Your task to perform on an android device: open app "DuckDuckGo Privacy Browser" (install if not already installed) Image 0: 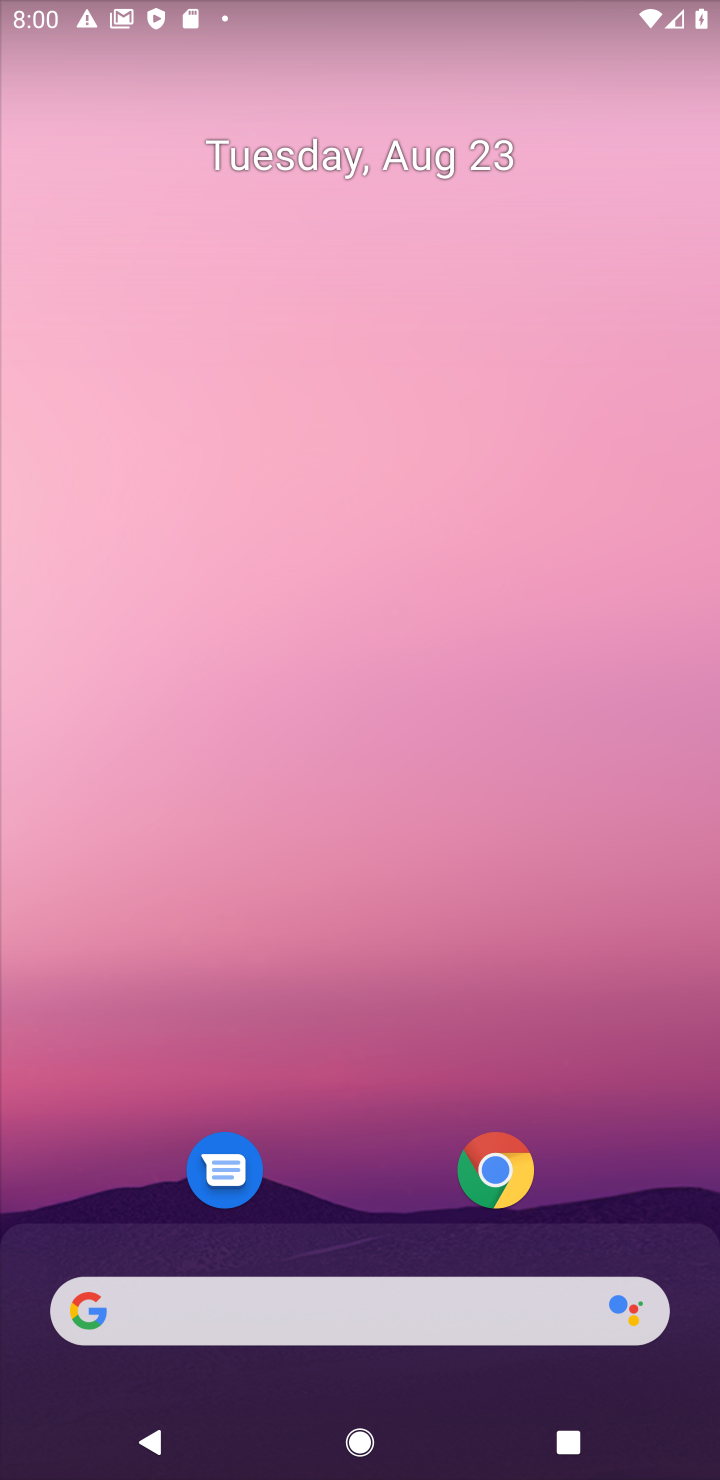
Step 0: drag from (653, 933) to (701, 12)
Your task to perform on an android device: open app "DuckDuckGo Privacy Browser" (install if not already installed) Image 1: 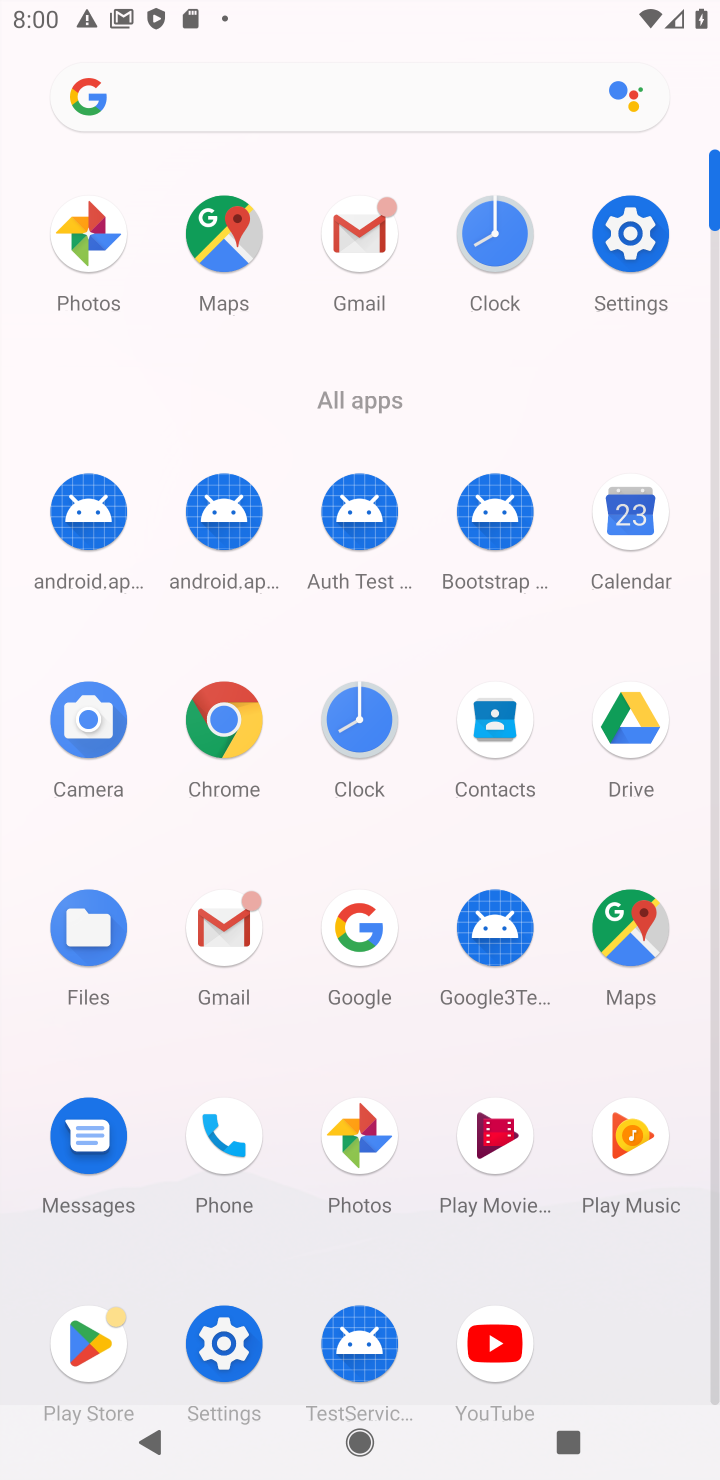
Step 1: click (90, 1343)
Your task to perform on an android device: open app "DuckDuckGo Privacy Browser" (install if not already installed) Image 2: 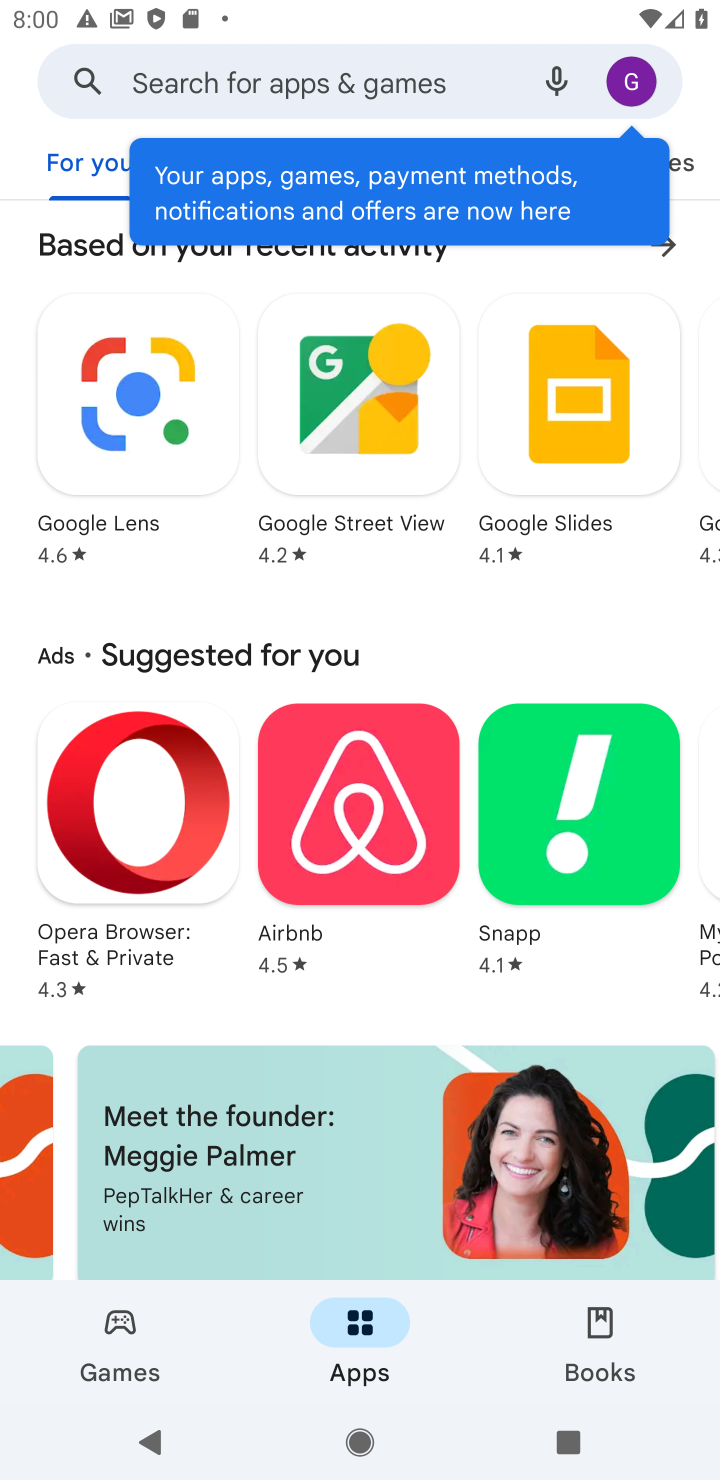
Step 2: click (71, 77)
Your task to perform on an android device: open app "DuckDuckGo Privacy Browser" (install if not already installed) Image 3: 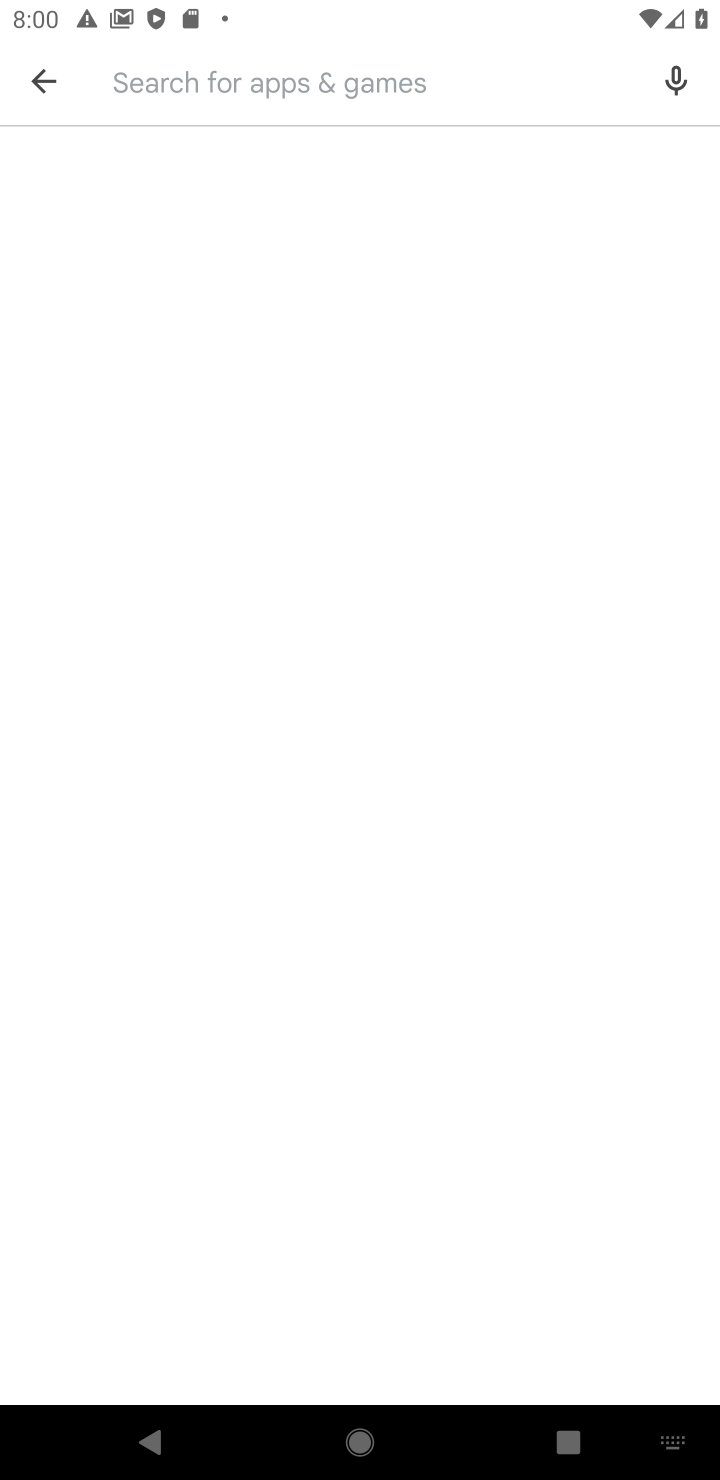
Step 3: type "DuckDuckGo Privacy Browser"
Your task to perform on an android device: open app "DuckDuckGo Privacy Browser" (install if not already installed) Image 4: 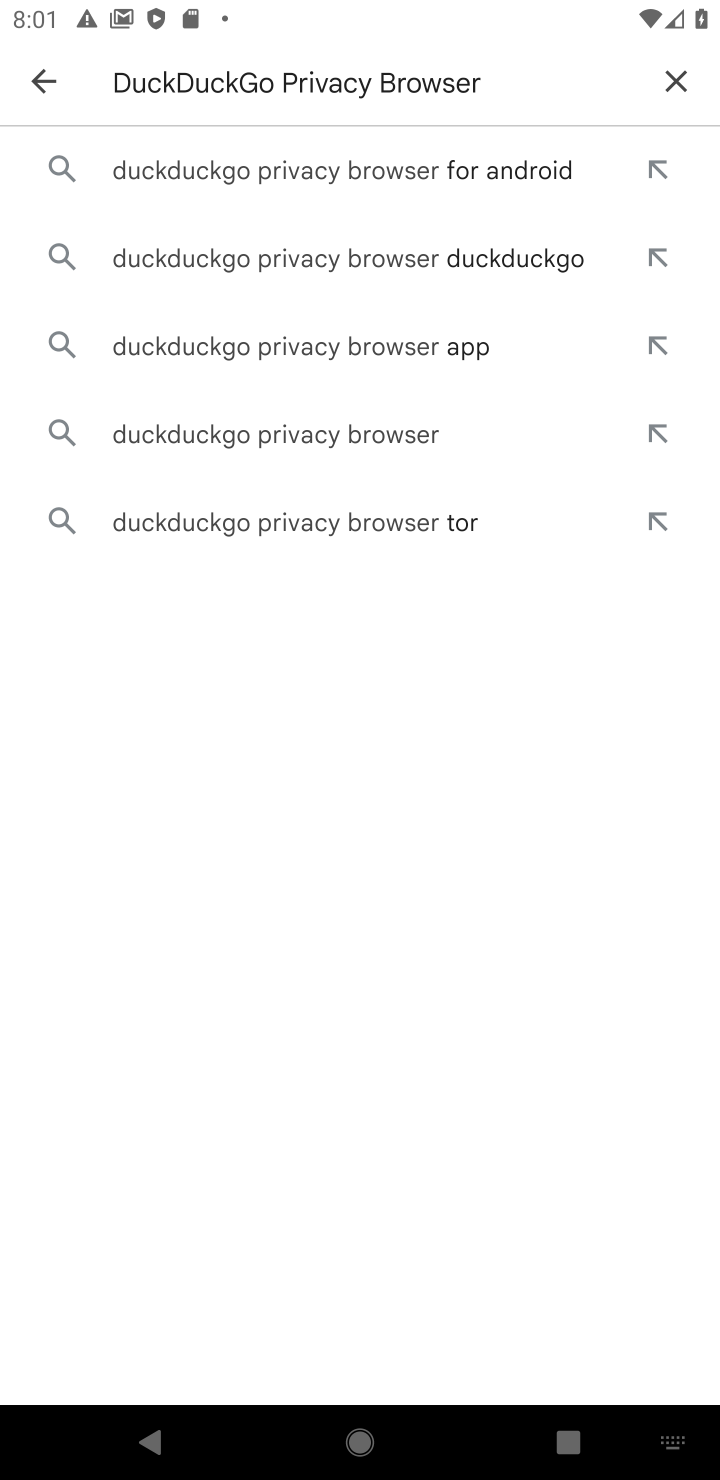
Step 4: click (243, 172)
Your task to perform on an android device: open app "DuckDuckGo Privacy Browser" (install if not already installed) Image 5: 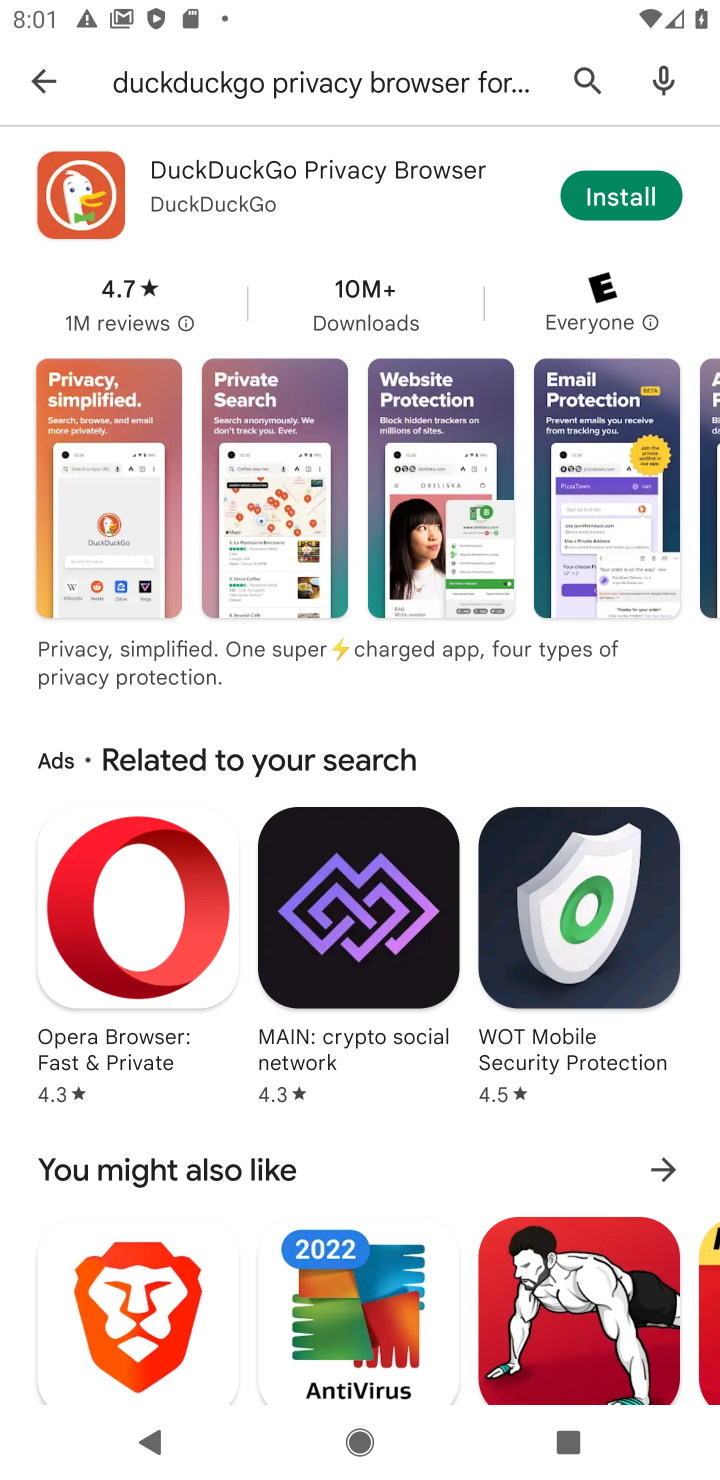
Step 5: click (191, 180)
Your task to perform on an android device: open app "DuckDuckGo Privacy Browser" (install if not already installed) Image 6: 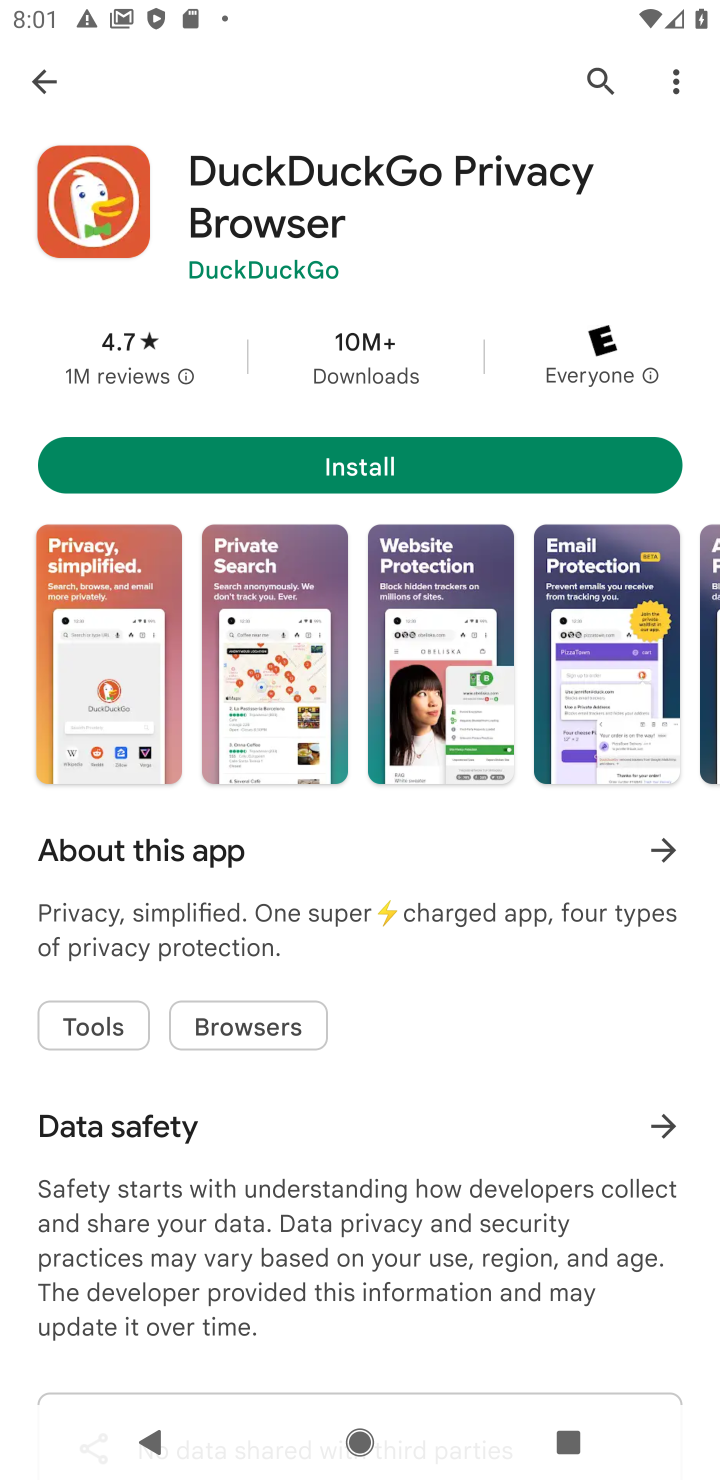
Step 6: click (349, 467)
Your task to perform on an android device: open app "DuckDuckGo Privacy Browser" (install if not already installed) Image 7: 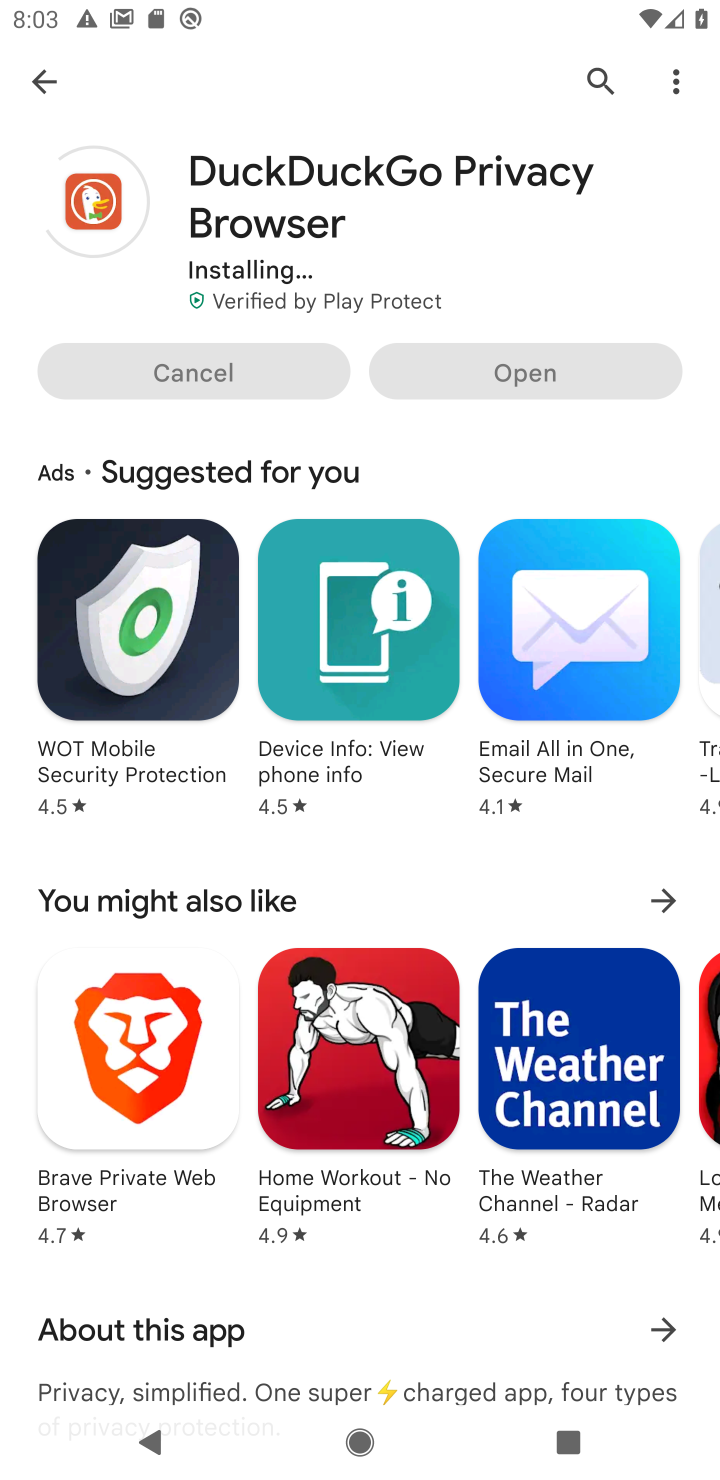
Step 7: drag from (323, 217) to (326, 296)
Your task to perform on an android device: open app "DuckDuckGo Privacy Browser" (install if not already installed) Image 8: 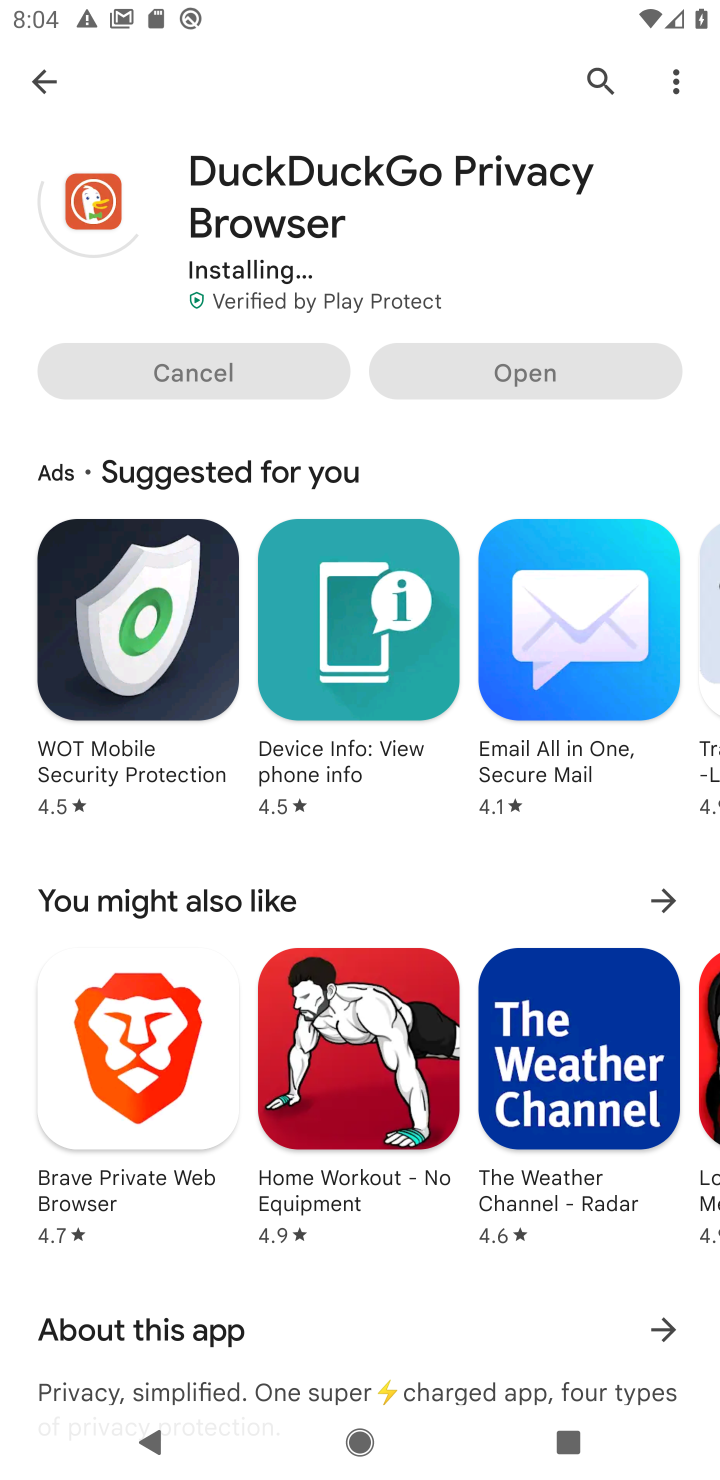
Step 8: click (279, 192)
Your task to perform on an android device: open app "DuckDuckGo Privacy Browser" (install if not already installed) Image 9: 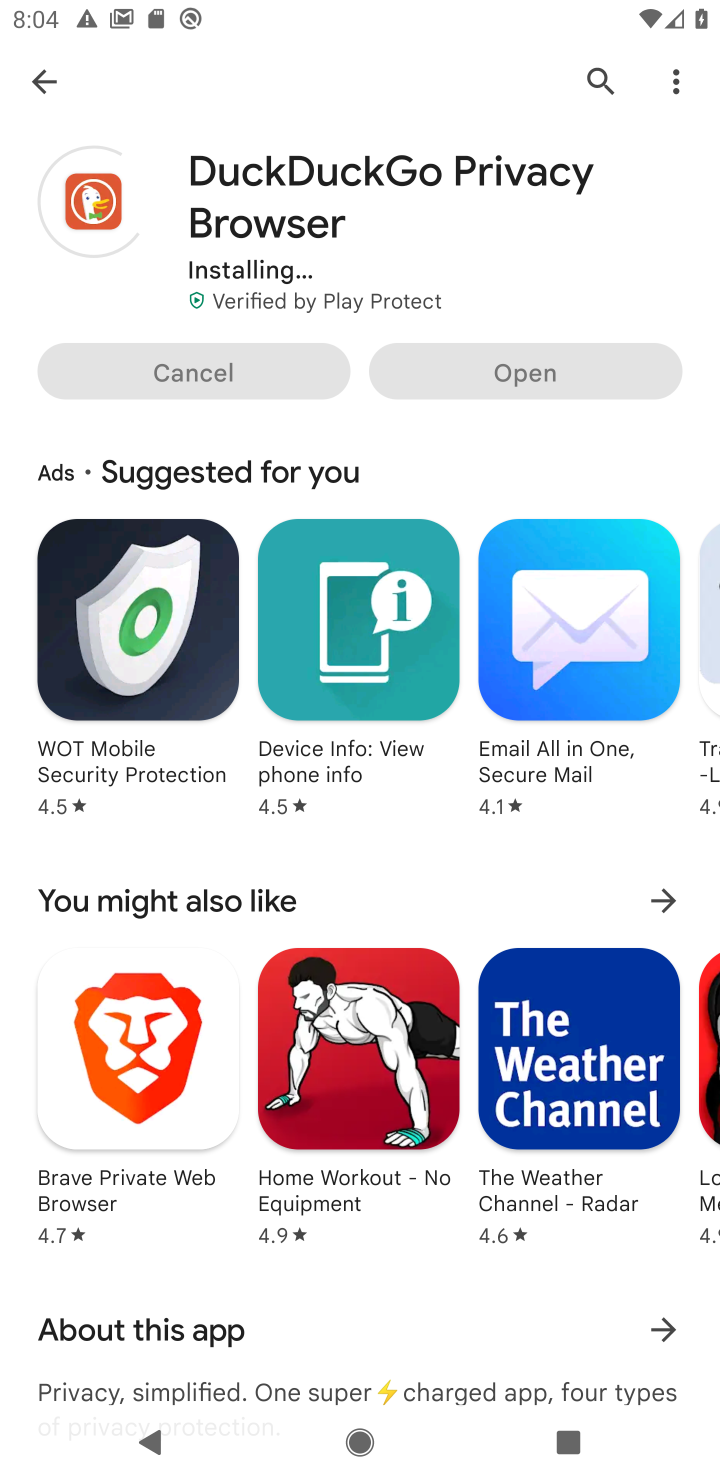
Step 9: drag from (320, 206) to (339, 330)
Your task to perform on an android device: open app "DuckDuckGo Privacy Browser" (install if not already installed) Image 10: 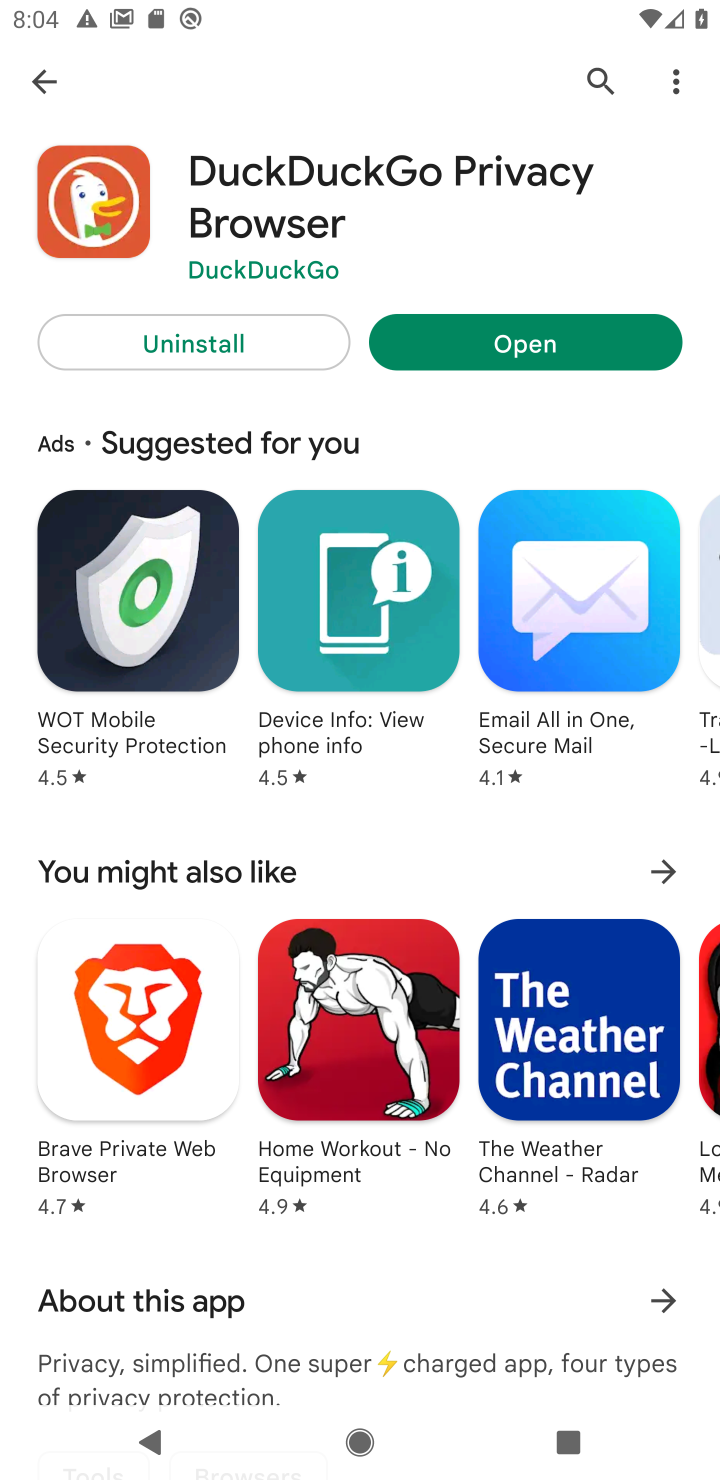
Step 10: click (536, 346)
Your task to perform on an android device: open app "DuckDuckGo Privacy Browser" (install if not already installed) Image 11: 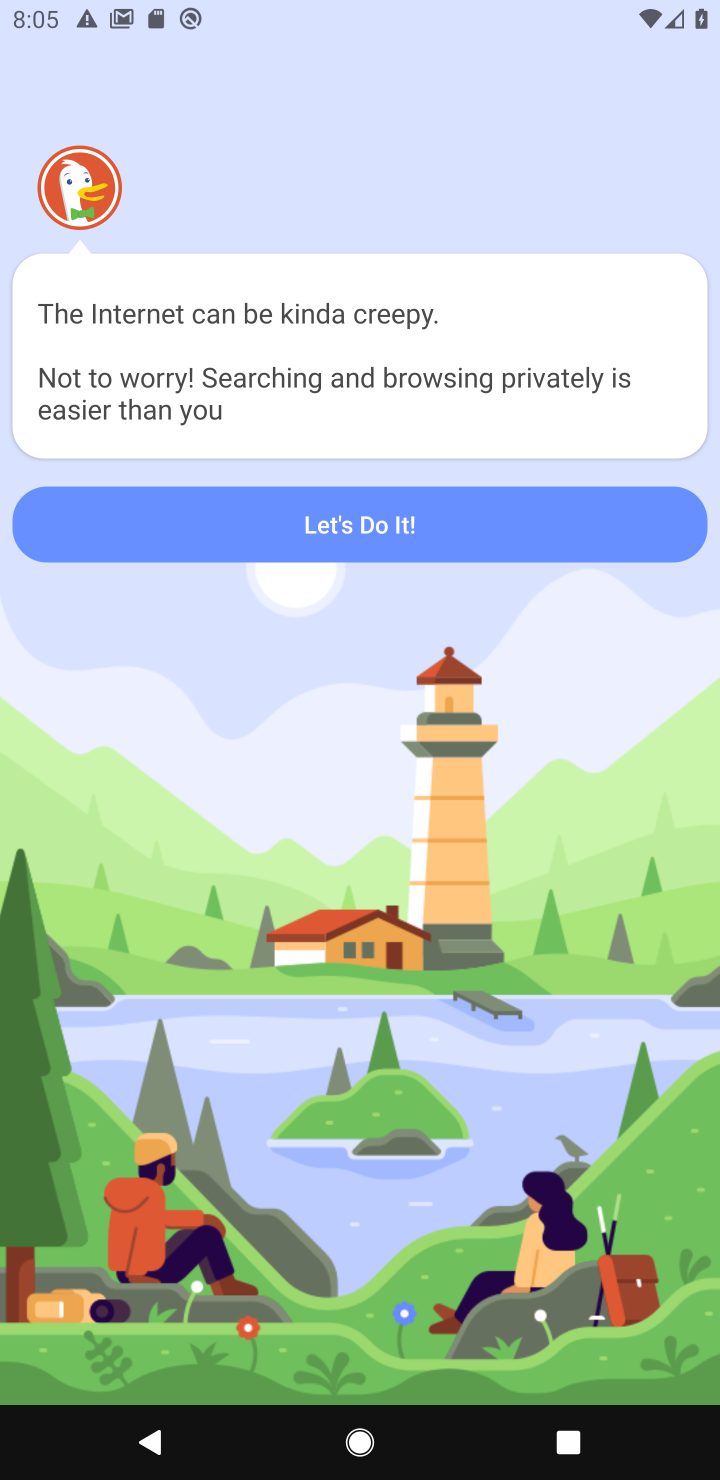
Step 11: task complete